Your task to perform on an android device: turn off notifications settings in the gmail app Image 0: 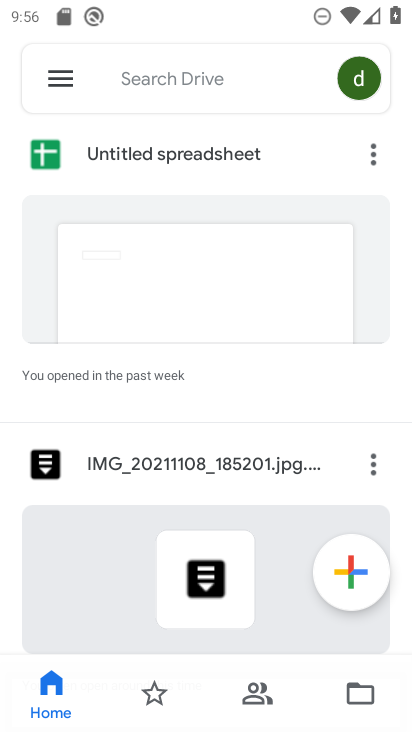
Step 0: press home button
Your task to perform on an android device: turn off notifications settings in the gmail app Image 1: 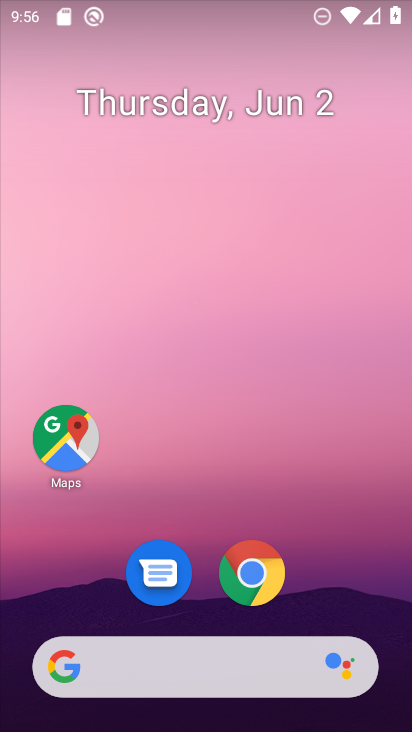
Step 1: drag from (328, 548) to (172, 168)
Your task to perform on an android device: turn off notifications settings in the gmail app Image 2: 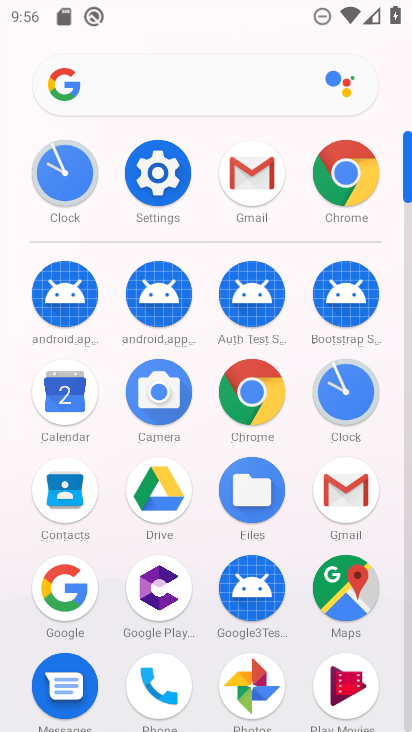
Step 2: click (263, 173)
Your task to perform on an android device: turn off notifications settings in the gmail app Image 3: 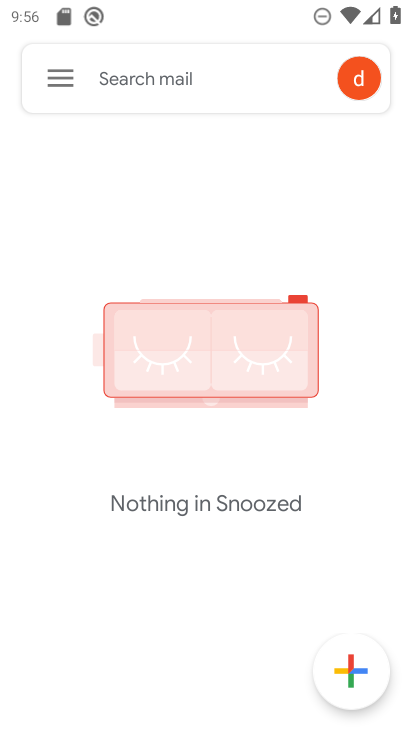
Step 3: click (65, 65)
Your task to perform on an android device: turn off notifications settings in the gmail app Image 4: 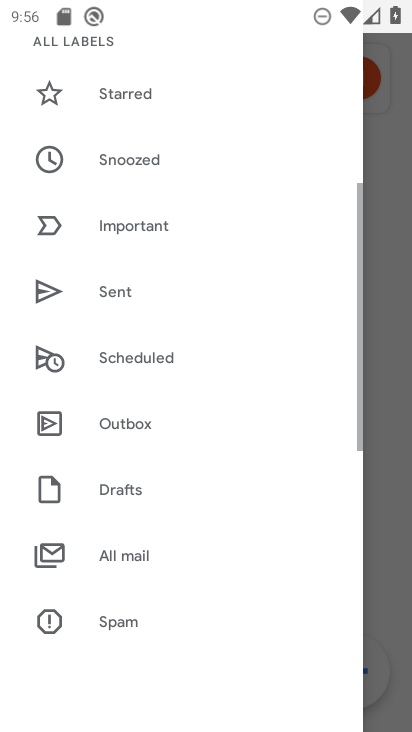
Step 4: drag from (148, 547) to (158, 229)
Your task to perform on an android device: turn off notifications settings in the gmail app Image 5: 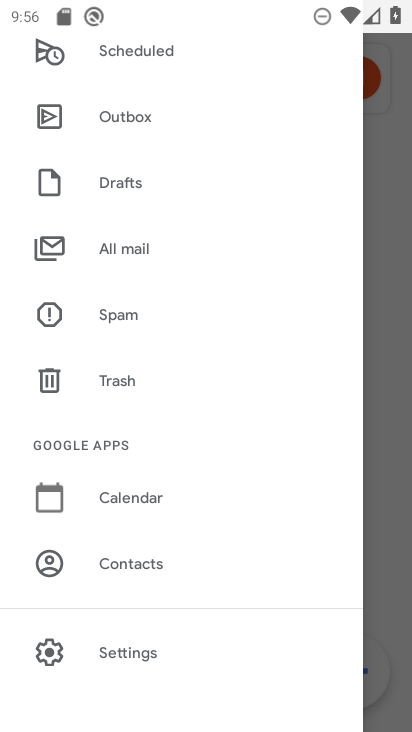
Step 5: click (113, 659)
Your task to perform on an android device: turn off notifications settings in the gmail app Image 6: 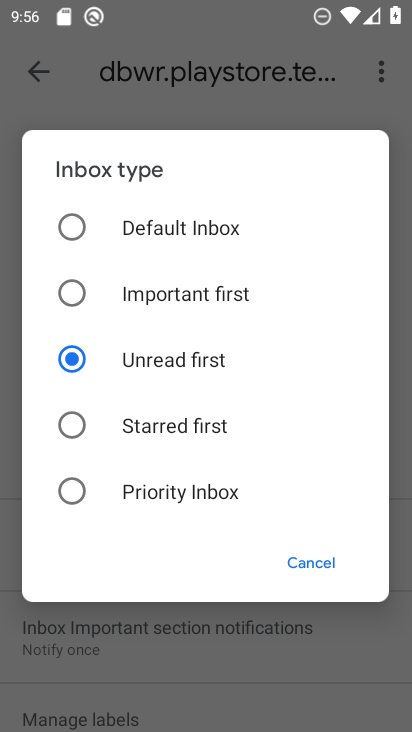
Step 6: click (314, 555)
Your task to perform on an android device: turn off notifications settings in the gmail app Image 7: 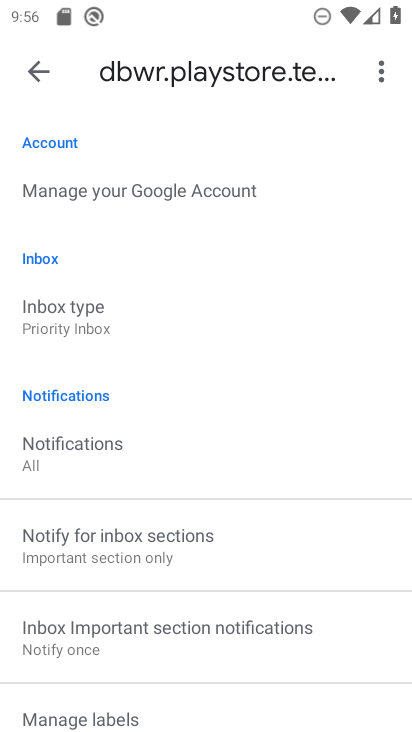
Step 7: drag from (133, 620) to (155, 423)
Your task to perform on an android device: turn off notifications settings in the gmail app Image 8: 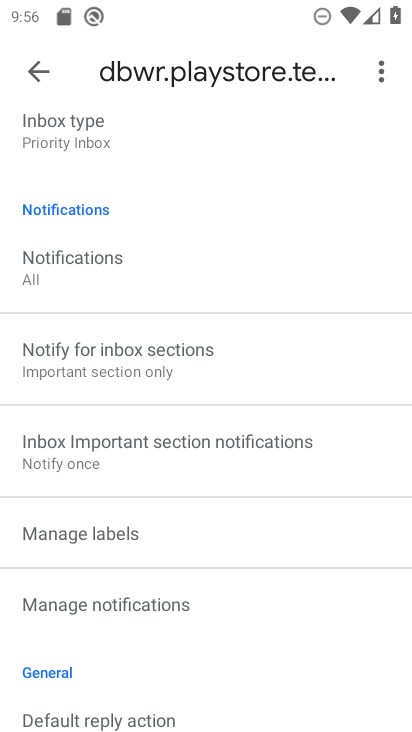
Step 8: click (112, 606)
Your task to perform on an android device: turn off notifications settings in the gmail app Image 9: 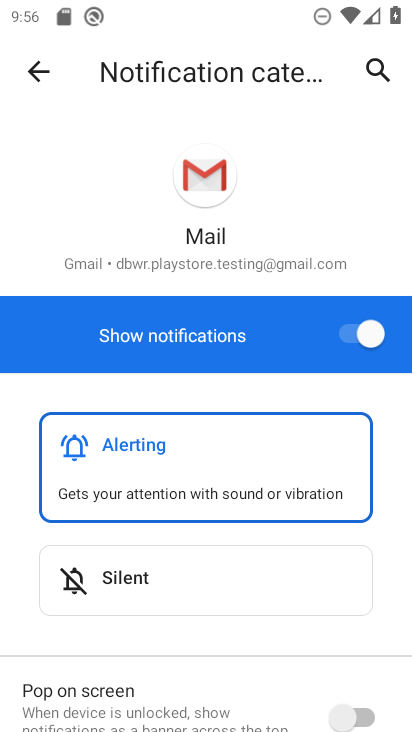
Step 9: click (381, 338)
Your task to perform on an android device: turn off notifications settings in the gmail app Image 10: 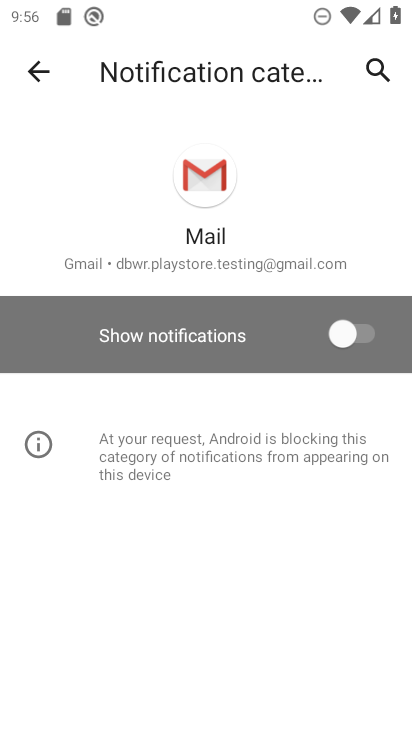
Step 10: task complete